Your task to perform on an android device: toggle improve location accuracy Image 0: 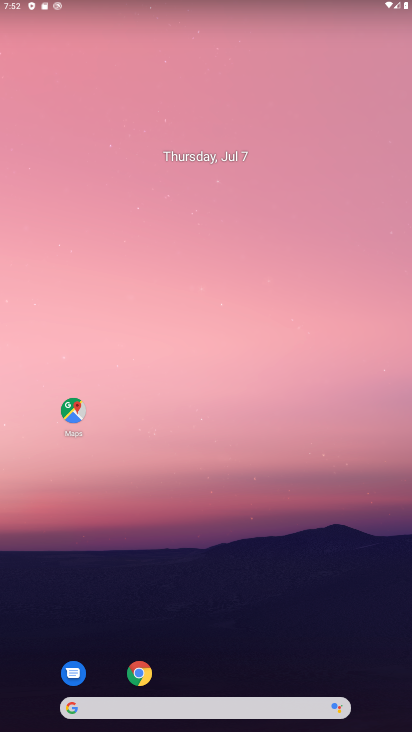
Step 0: drag from (232, 690) to (205, 248)
Your task to perform on an android device: toggle improve location accuracy Image 1: 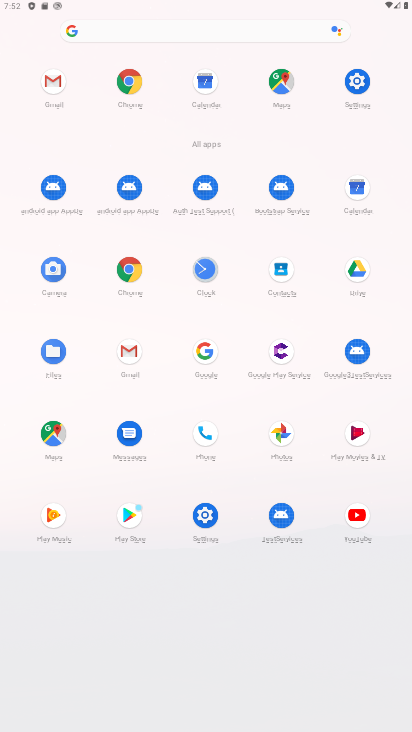
Step 1: click (214, 530)
Your task to perform on an android device: toggle improve location accuracy Image 2: 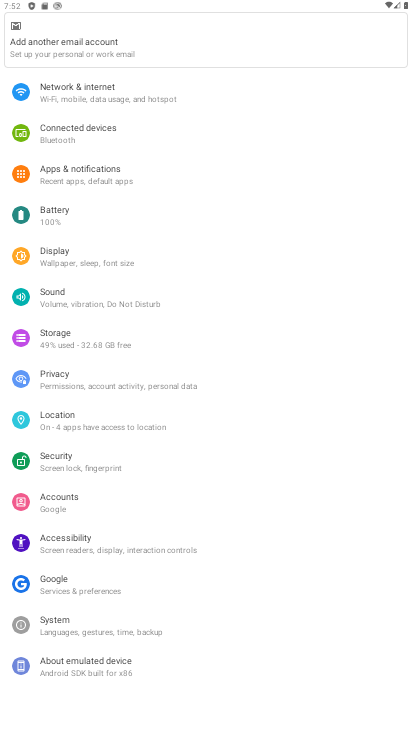
Step 2: click (51, 421)
Your task to perform on an android device: toggle improve location accuracy Image 3: 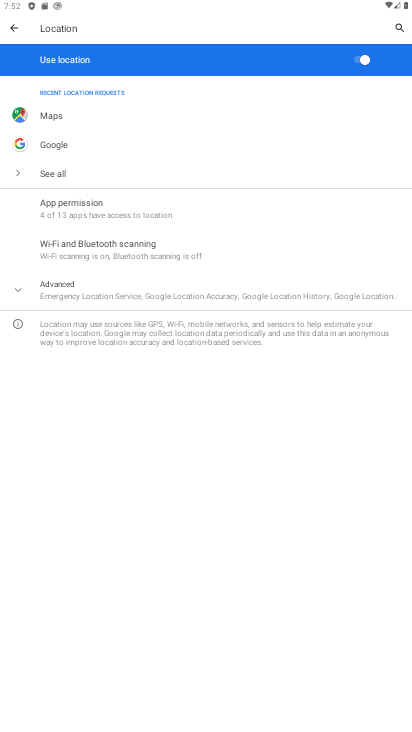
Step 3: click (72, 298)
Your task to perform on an android device: toggle improve location accuracy Image 4: 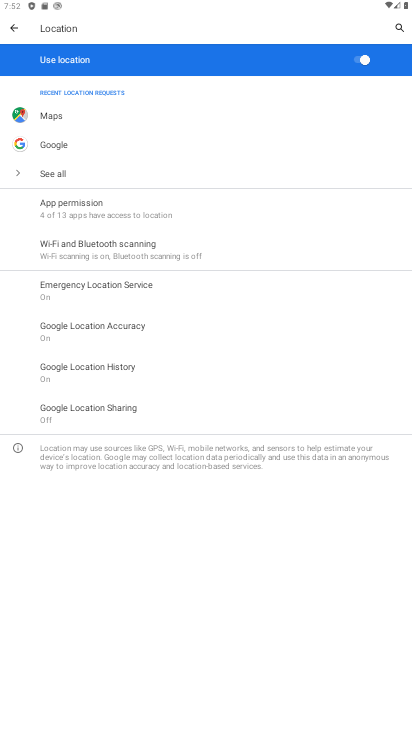
Step 4: click (100, 326)
Your task to perform on an android device: toggle improve location accuracy Image 5: 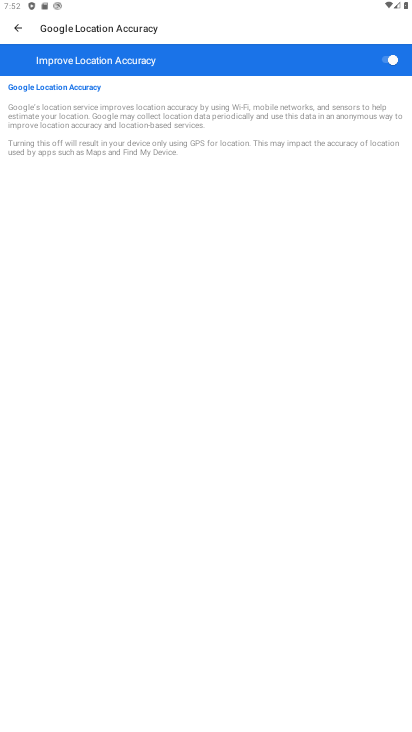
Step 5: click (395, 64)
Your task to perform on an android device: toggle improve location accuracy Image 6: 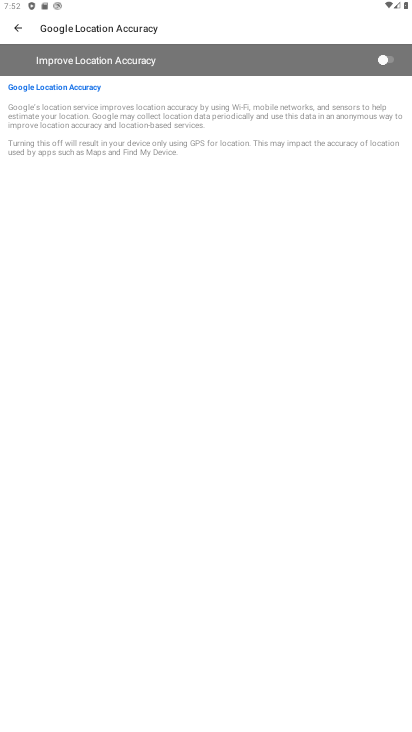
Step 6: task complete